Your task to perform on an android device: Add "logitech g910" to the cart on newegg.com, then select checkout. Image 0: 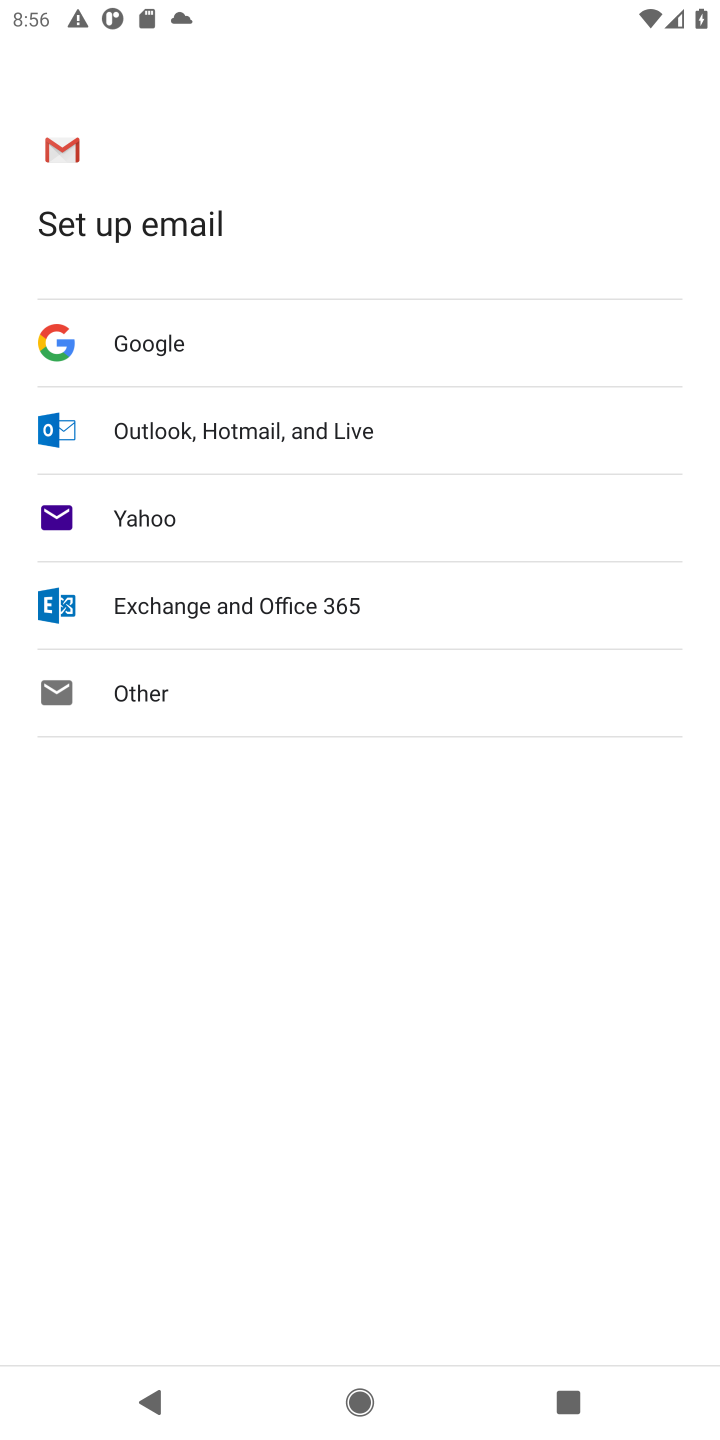
Step 0: press home button
Your task to perform on an android device: Add "logitech g910" to the cart on newegg.com, then select checkout. Image 1: 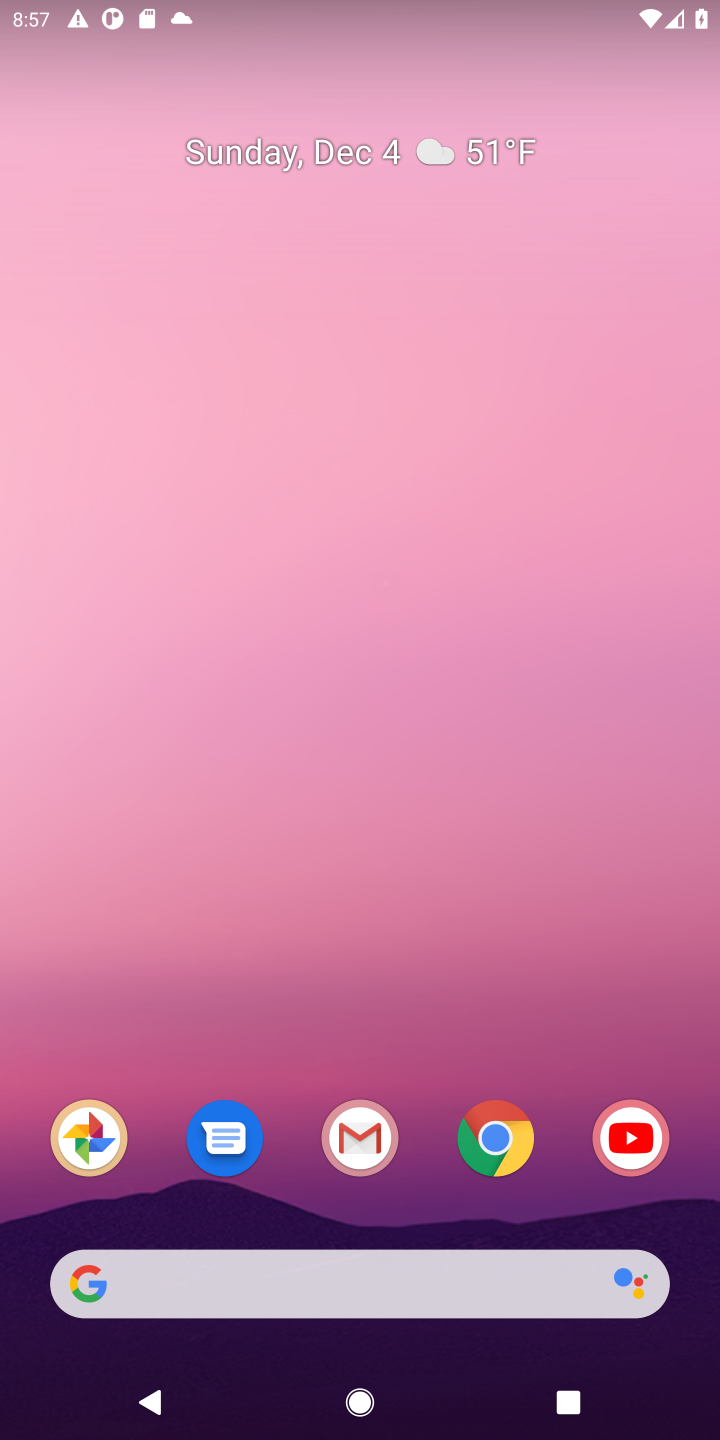
Step 1: click (494, 1149)
Your task to perform on an android device: Add "logitech g910" to the cart on newegg.com, then select checkout. Image 2: 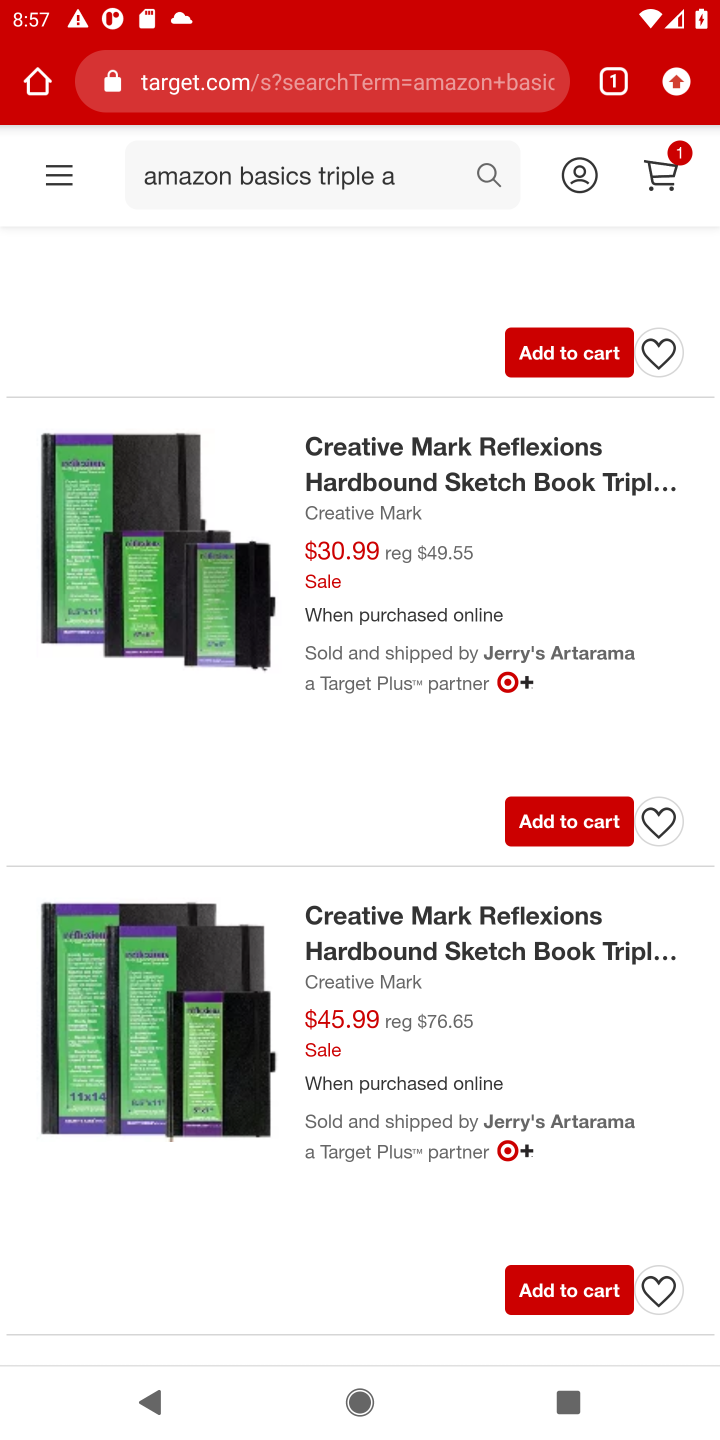
Step 2: click (406, 77)
Your task to perform on an android device: Add "logitech g910" to the cart on newegg.com, then select checkout. Image 3: 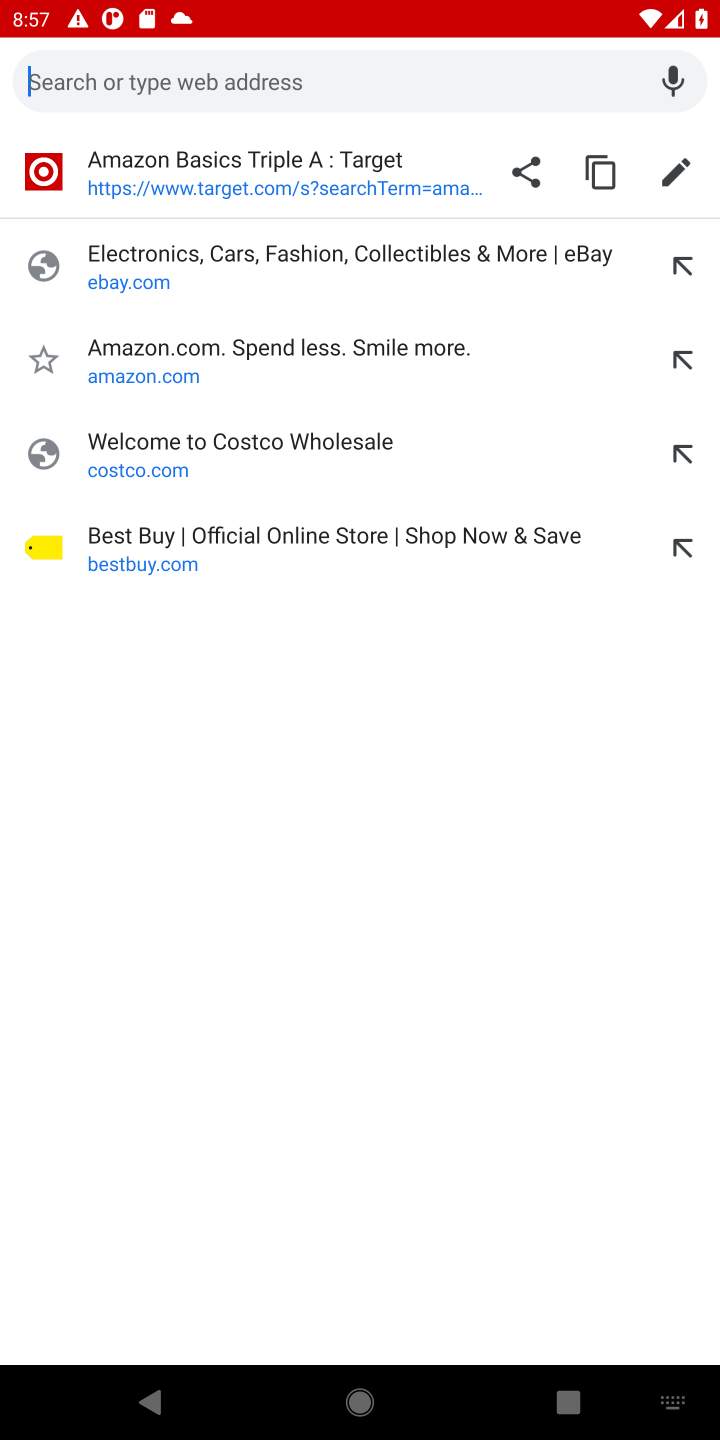
Step 3: type "newegg.com"
Your task to perform on an android device: Add "logitech g910" to the cart on newegg.com, then select checkout. Image 4: 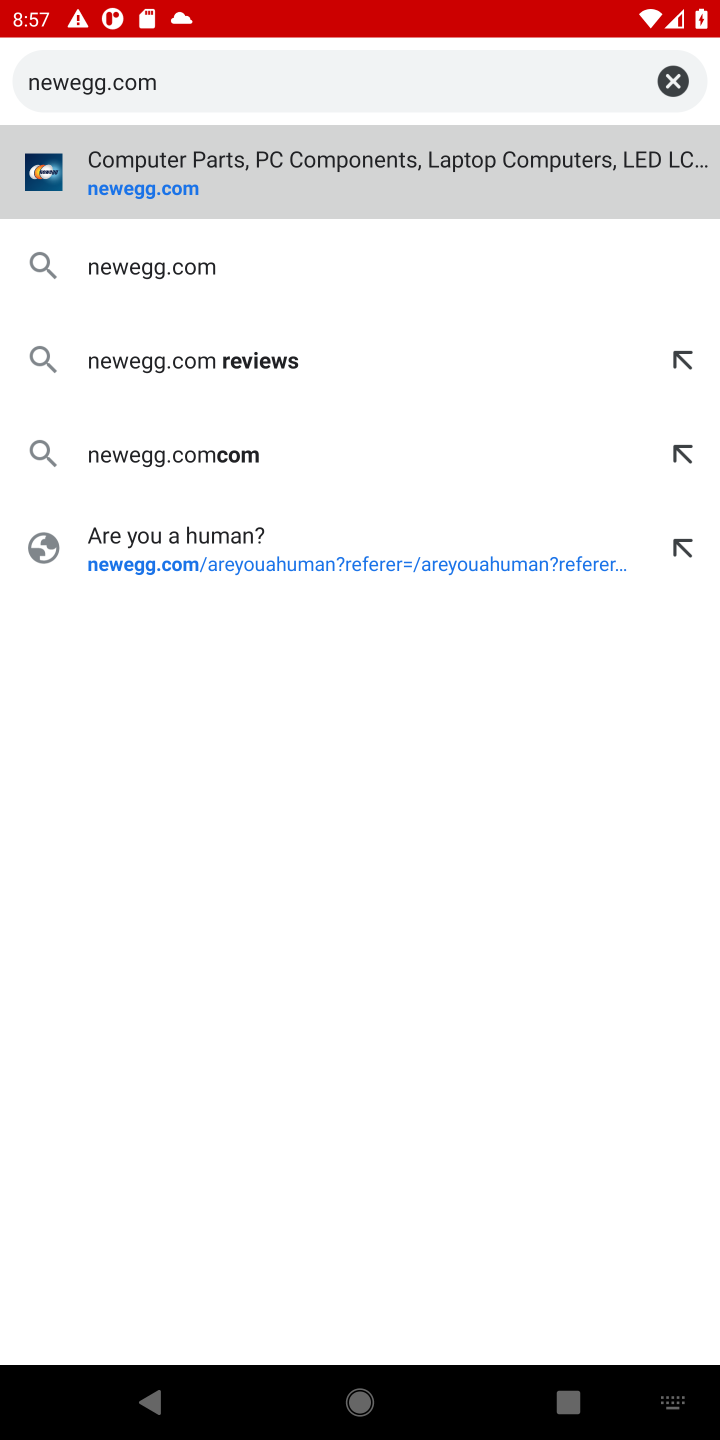
Step 4: press enter
Your task to perform on an android device: Add "logitech g910" to the cart on newegg.com, then select checkout. Image 5: 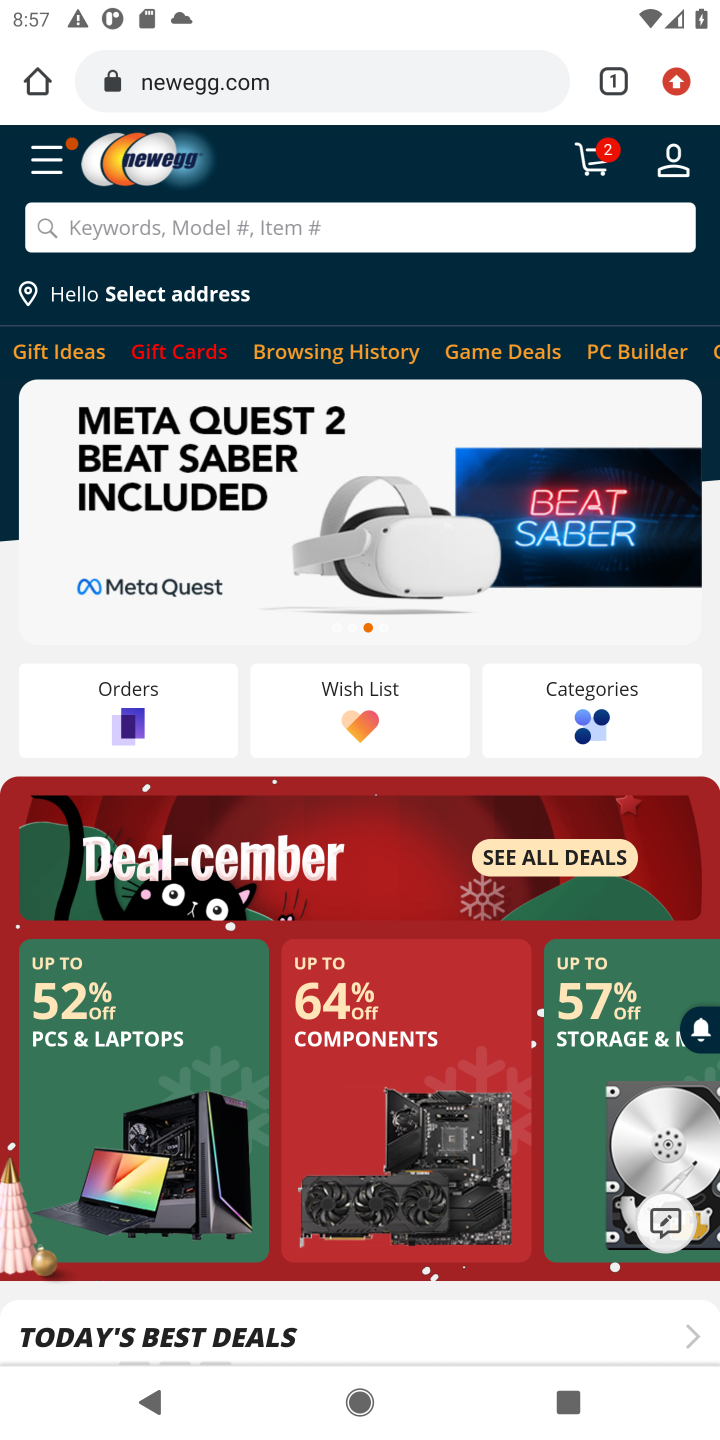
Step 5: click (455, 225)
Your task to perform on an android device: Add "logitech g910" to the cart on newegg.com, then select checkout. Image 6: 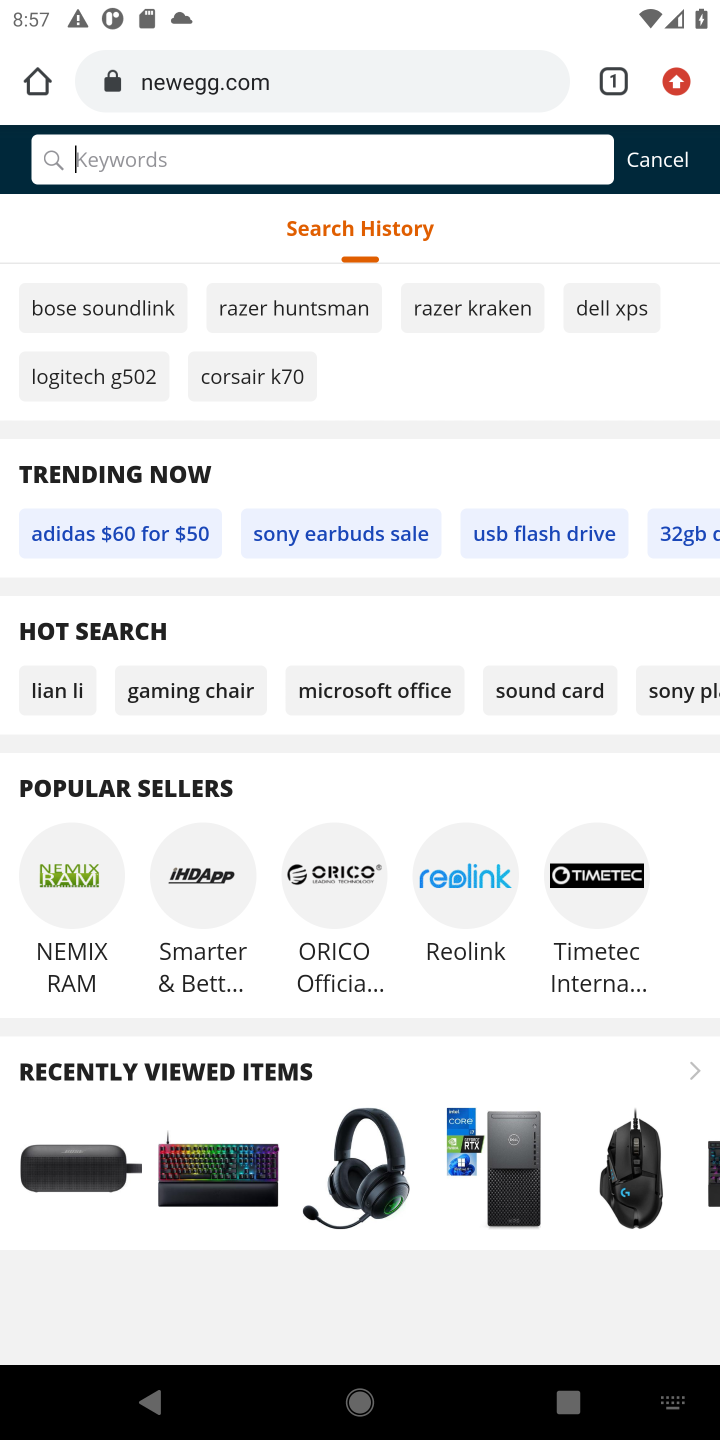
Step 6: type "logitech g910"
Your task to perform on an android device: Add "logitech g910" to the cart on newegg.com, then select checkout. Image 7: 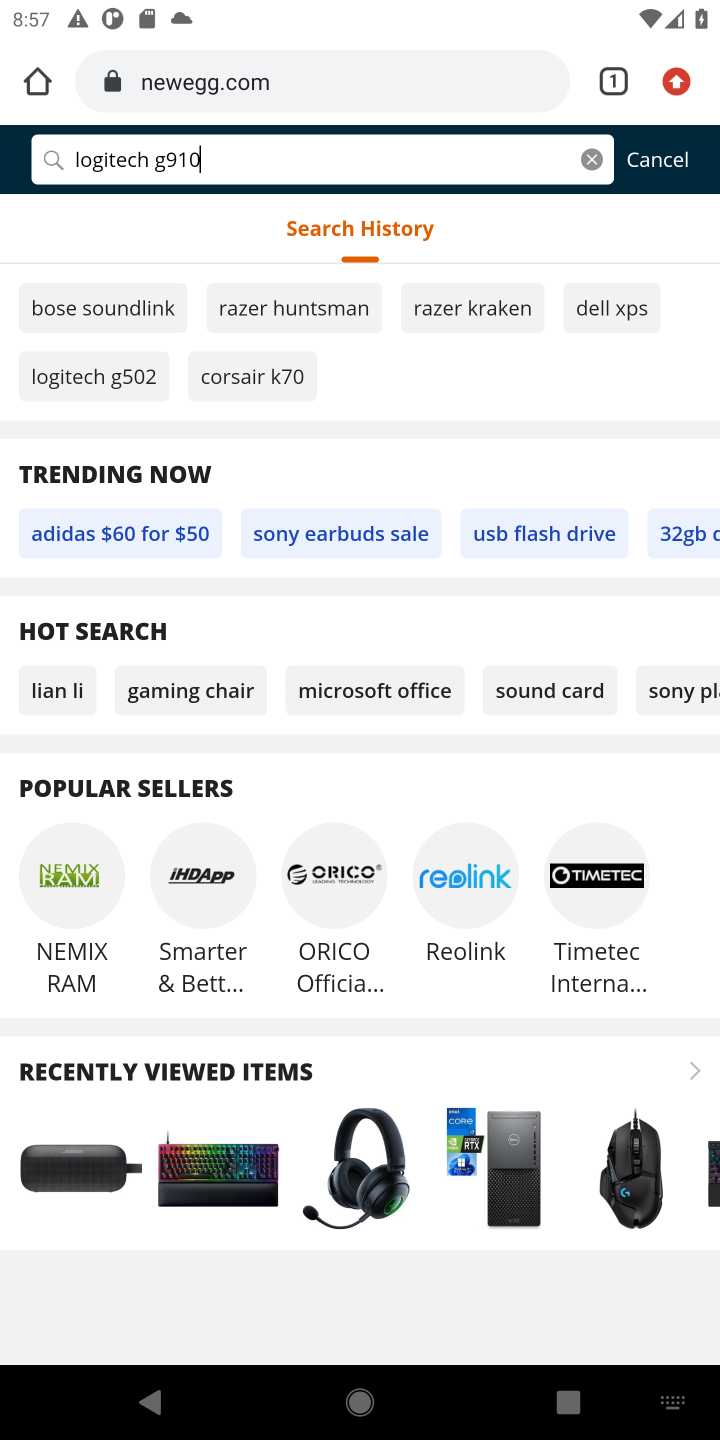
Step 7: press enter
Your task to perform on an android device: Add "logitech g910" to the cart on newegg.com, then select checkout. Image 8: 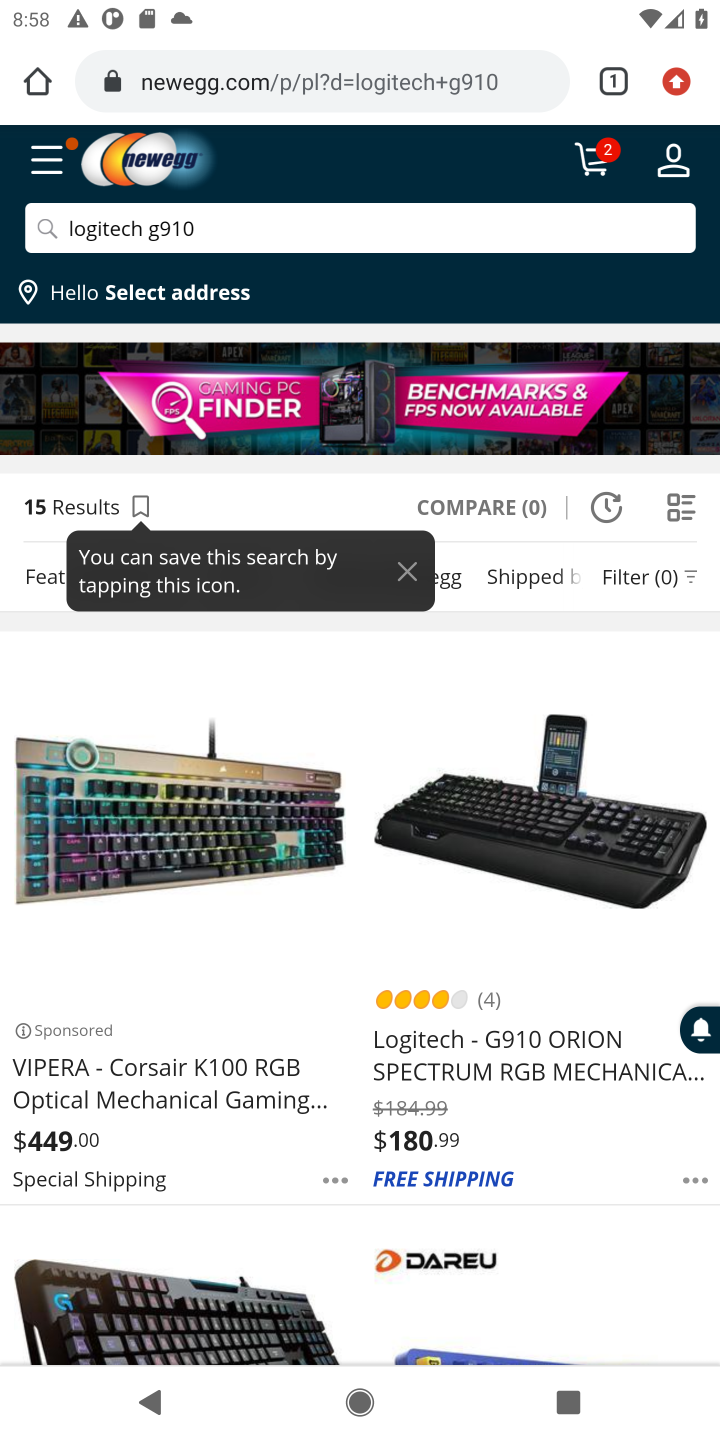
Step 8: click (552, 815)
Your task to perform on an android device: Add "logitech g910" to the cart on newegg.com, then select checkout. Image 9: 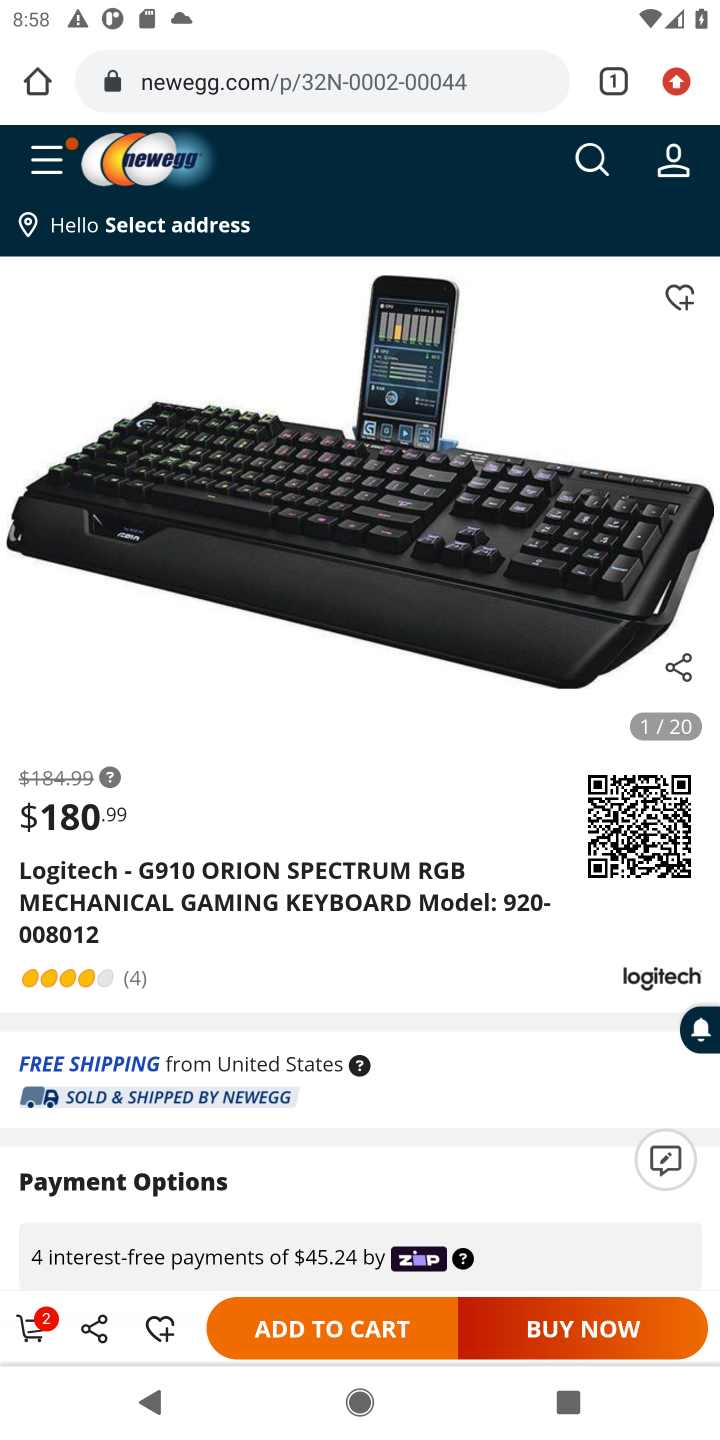
Step 9: click (326, 1334)
Your task to perform on an android device: Add "logitech g910" to the cart on newegg.com, then select checkout. Image 10: 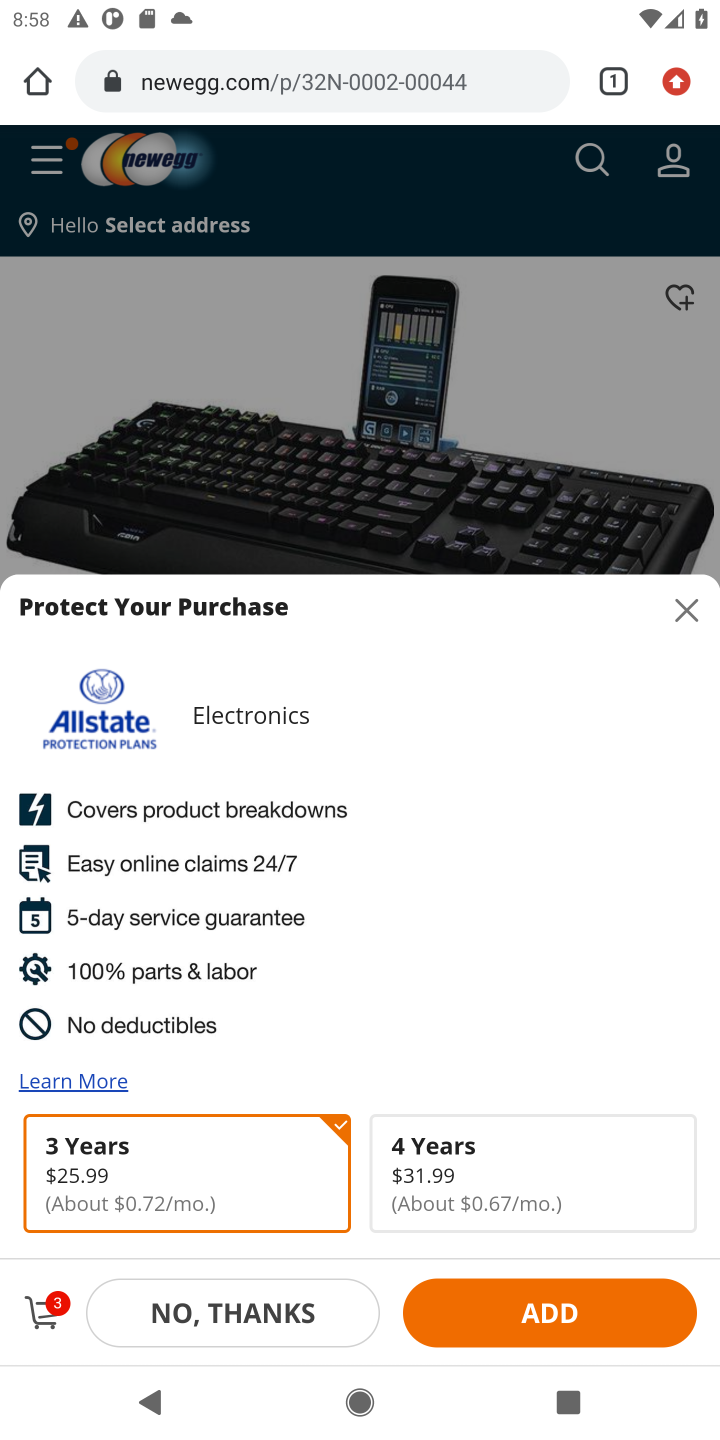
Step 10: click (45, 1312)
Your task to perform on an android device: Add "logitech g910" to the cart on newegg.com, then select checkout. Image 11: 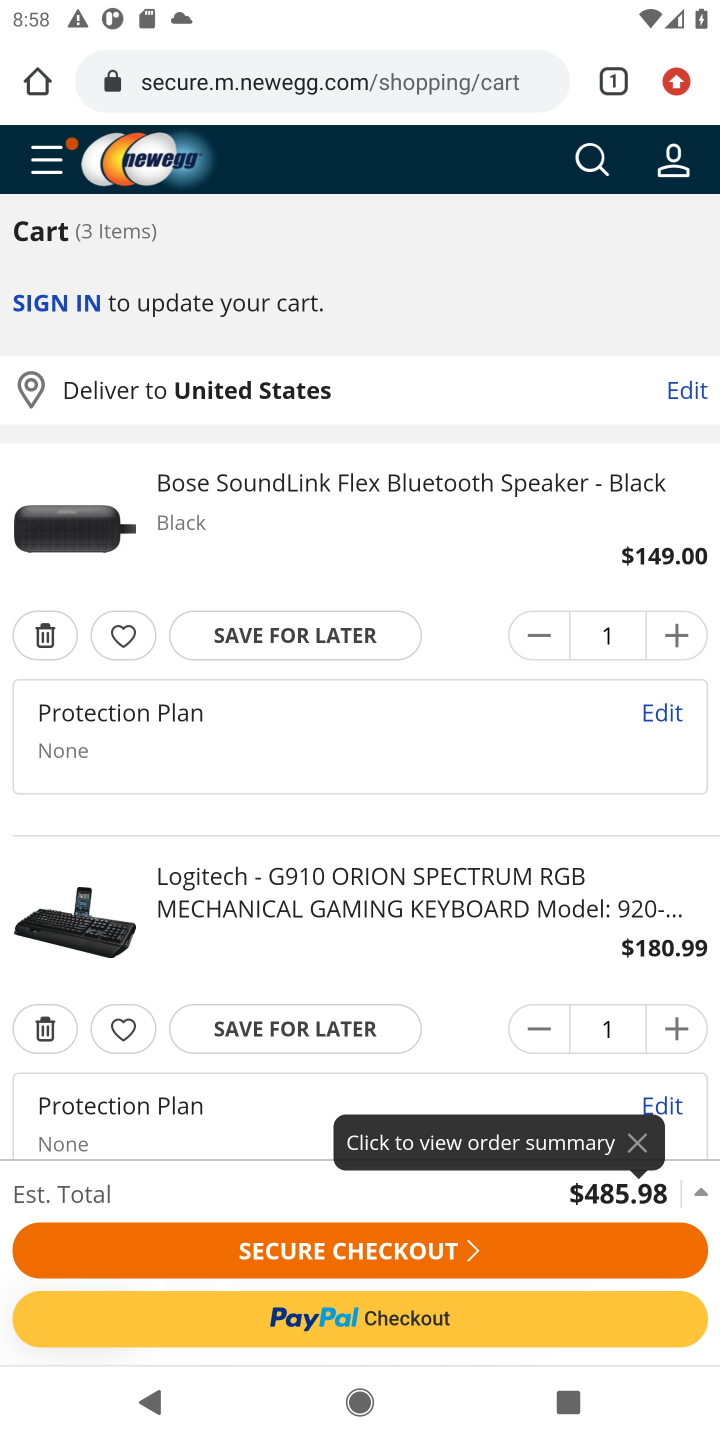
Step 11: click (408, 1251)
Your task to perform on an android device: Add "logitech g910" to the cart on newegg.com, then select checkout. Image 12: 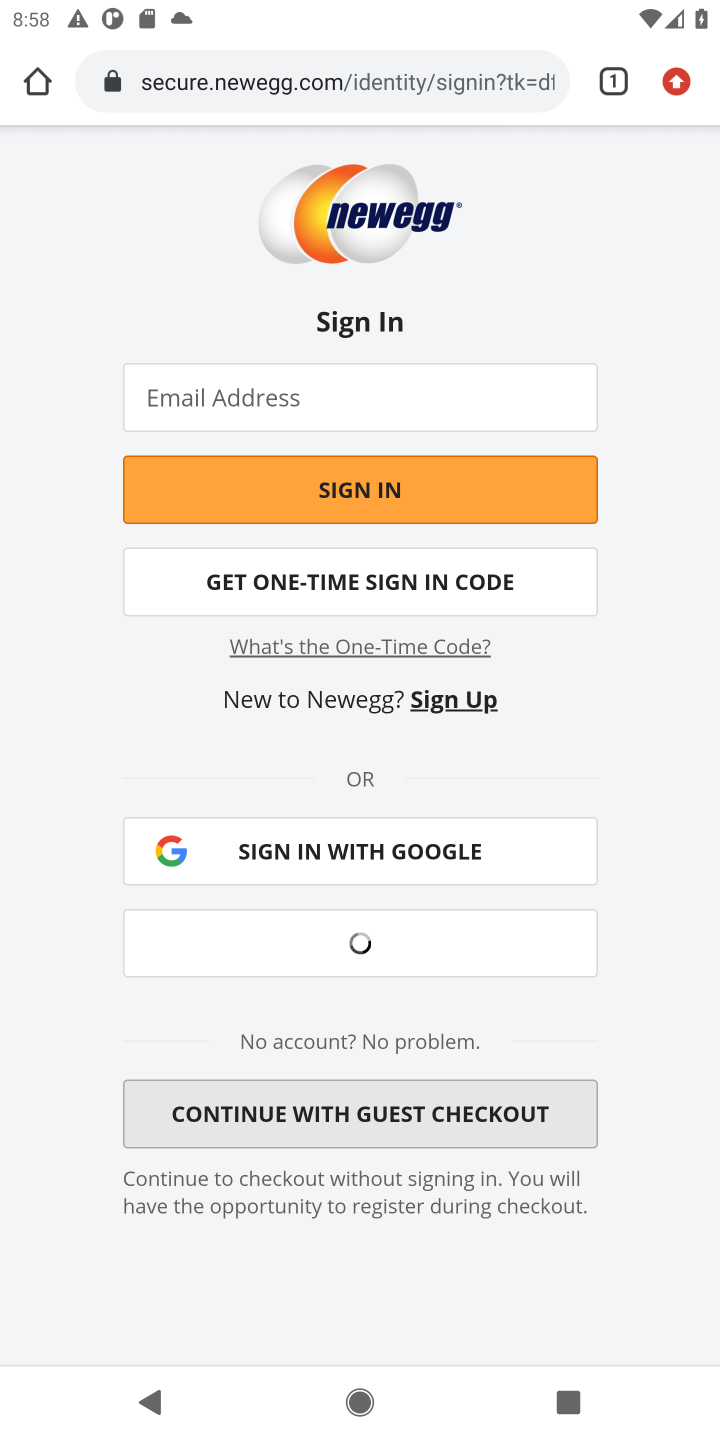
Step 12: task complete